Your task to perform on an android device: turn off location Image 0: 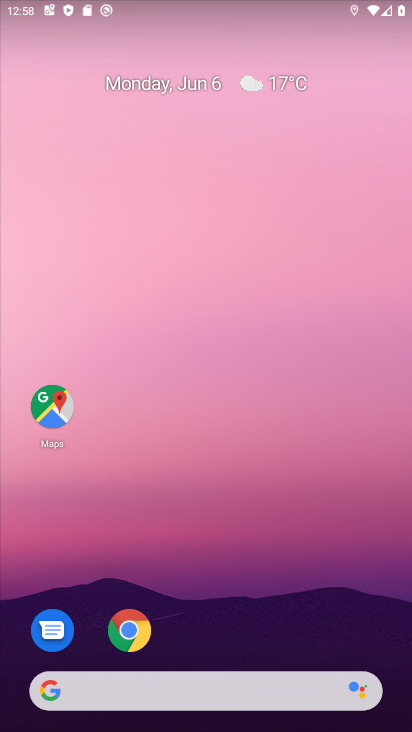
Step 0: press back button
Your task to perform on an android device: turn off location Image 1: 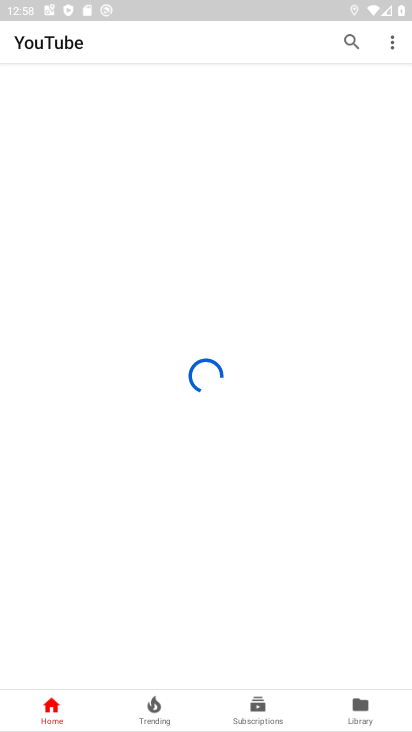
Step 1: drag from (233, 715) to (153, 55)
Your task to perform on an android device: turn off location Image 2: 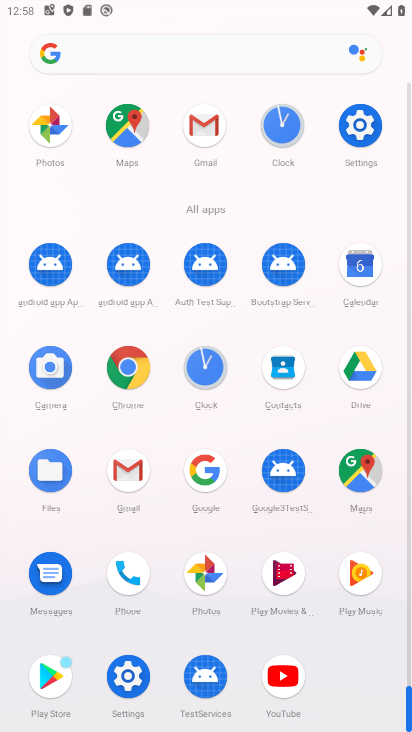
Step 2: click (357, 130)
Your task to perform on an android device: turn off location Image 3: 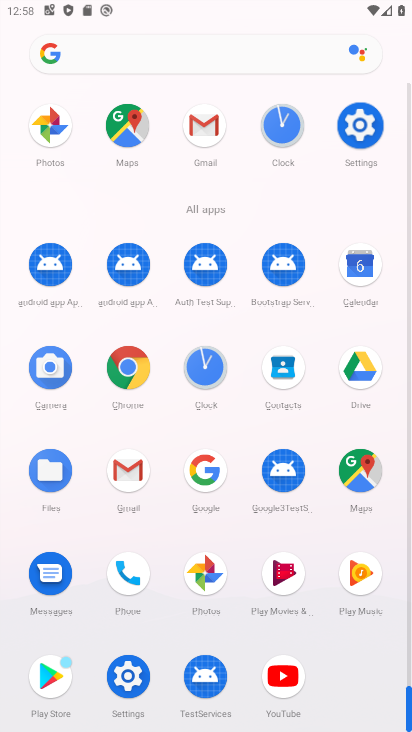
Step 3: click (357, 130)
Your task to perform on an android device: turn off location Image 4: 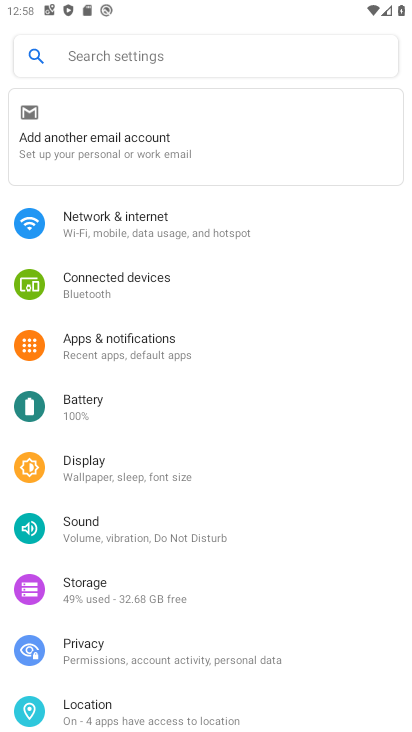
Step 4: click (91, 706)
Your task to perform on an android device: turn off location Image 5: 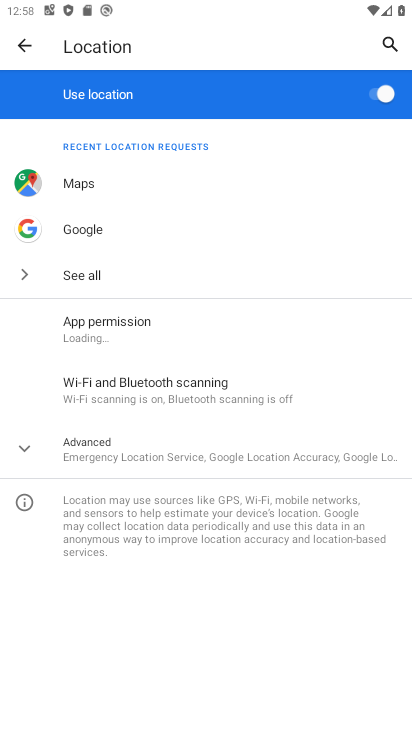
Step 5: click (383, 95)
Your task to perform on an android device: turn off location Image 6: 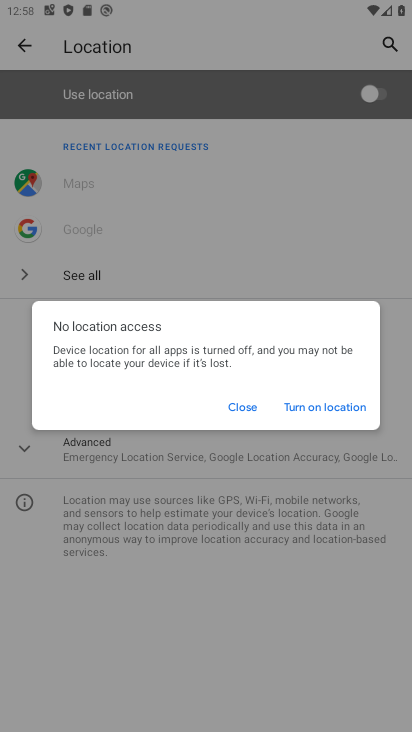
Step 6: task complete